Your task to perform on an android device: Open Android settings Image 0: 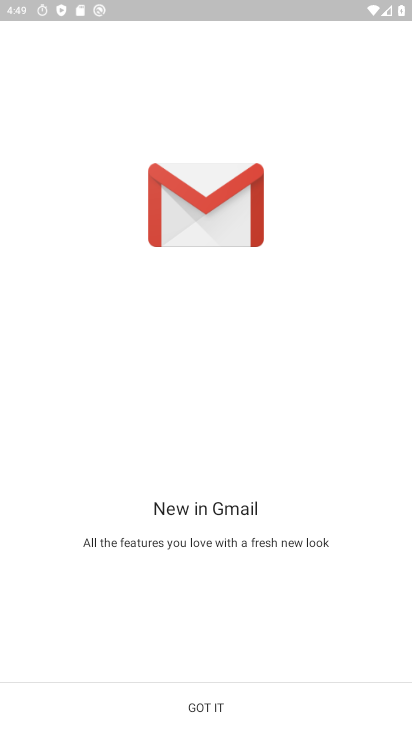
Step 0: press home button
Your task to perform on an android device: Open Android settings Image 1: 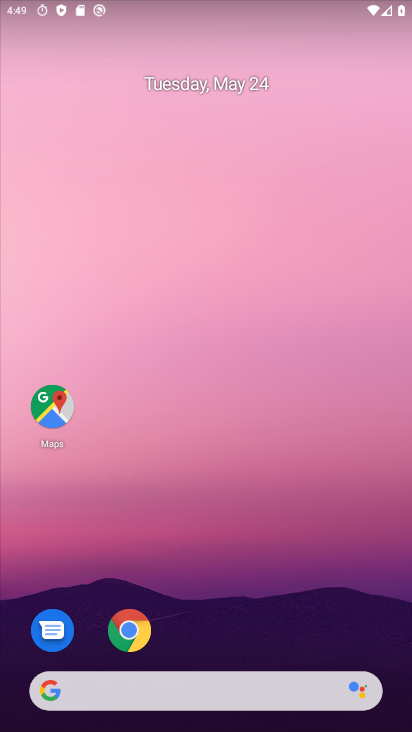
Step 1: drag from (199, 650) to (189, 174)
Your task to perform on an android device: Open Android settings Image 2: 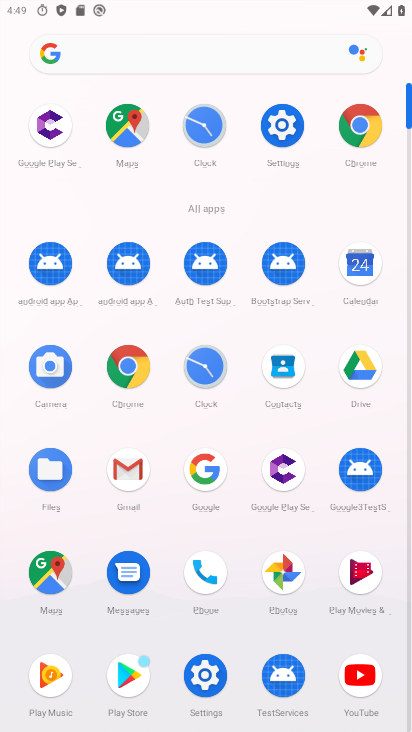
Step 2: click (290, 123)
Your task to perform on an android device: Open Android settings Image 3: 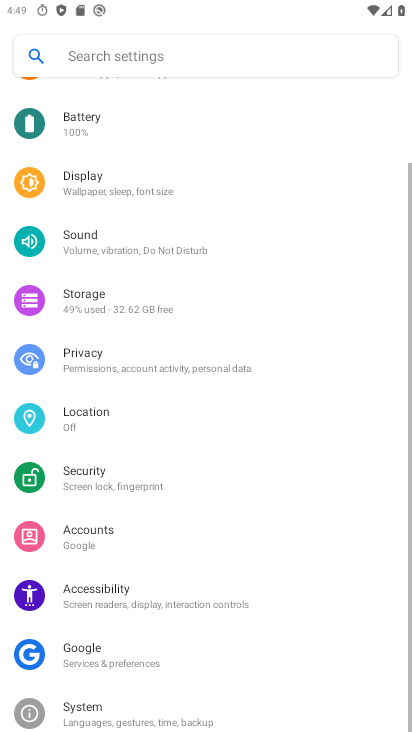
Step 3: task complete